Your task to perform on an android device: What's on my calendar tomorrow? Image 0: 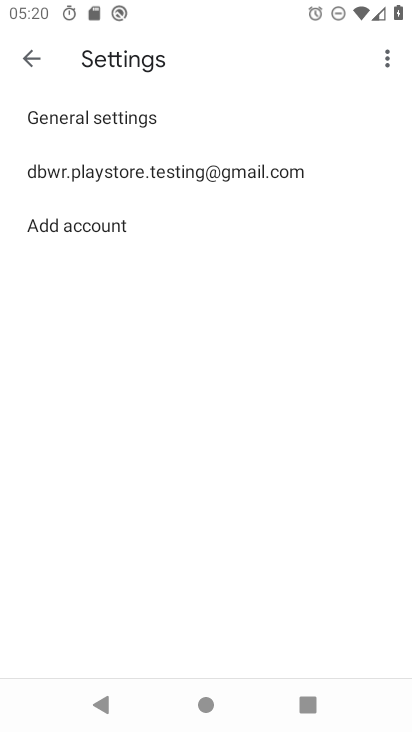
Step 0: press home button
Your task to perform on an android device: What's on my calendar tomorrow? Image 1: 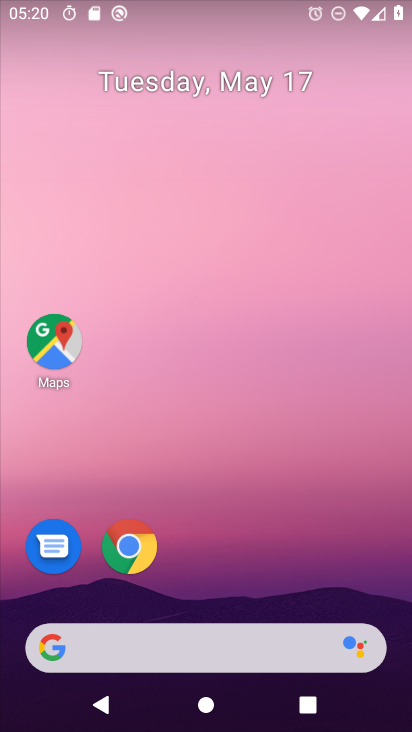
Step 1: drag from (394, 676) to (376, 275)
Your task to perform on an android device: What's on my calendar tomorrow? Image 2: 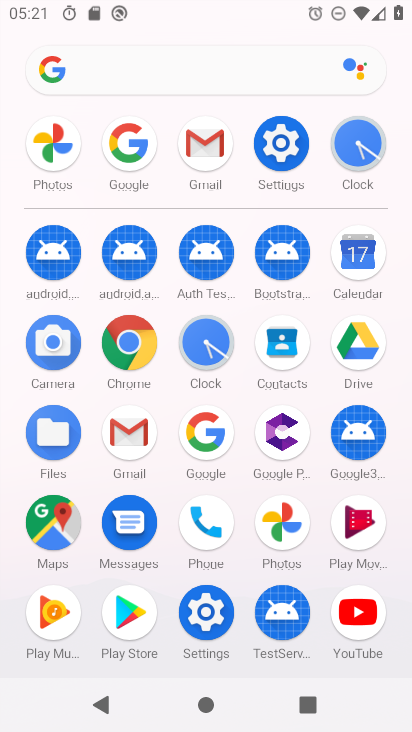
Step 2: click (346, 264)
Your task to perform on an android device: What's on my calendar tomorrow? Image 3: 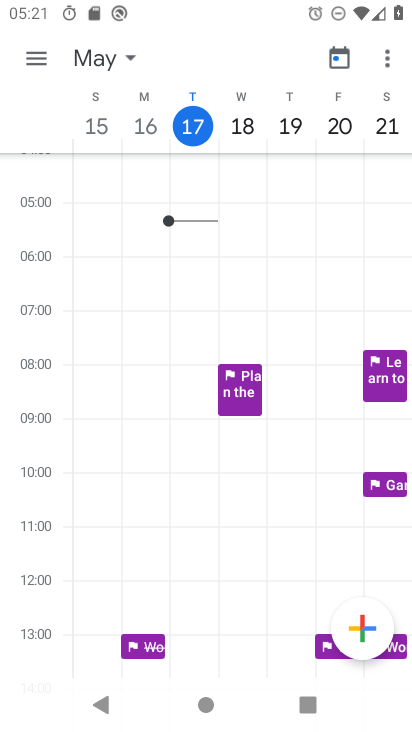
Step 3: click (234, 118)
Your task to perform on an android device: What's on my calendar tomorrow? Image 4: 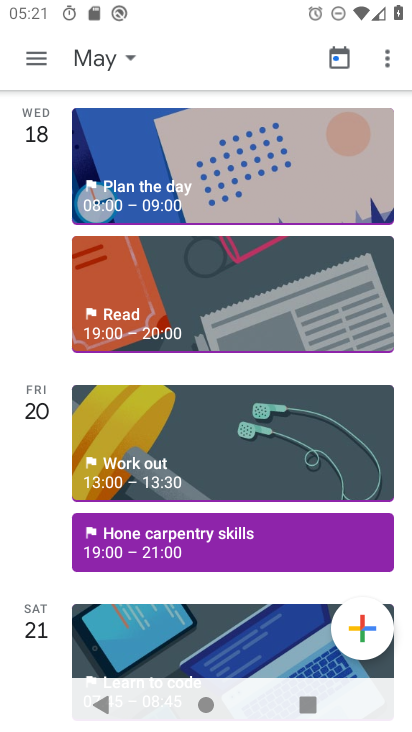
Step 4: task complete